Your task to perform on an android device: turn off airplane mode Image 0: 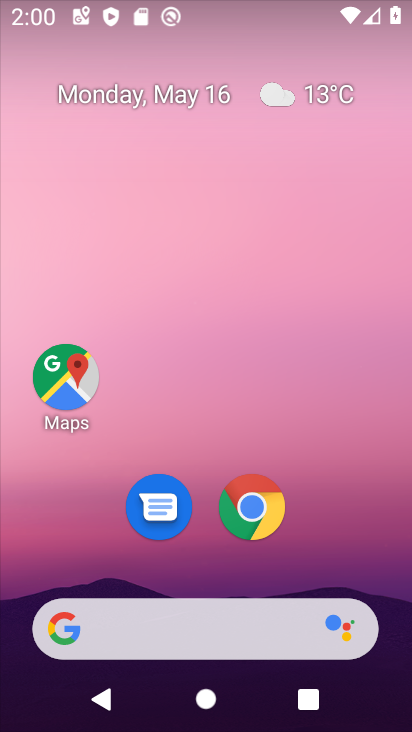
Step 0: drag from (353, 565) to (368, 70)
Your task to perform on an android device: turn off airplane mode Image 1: 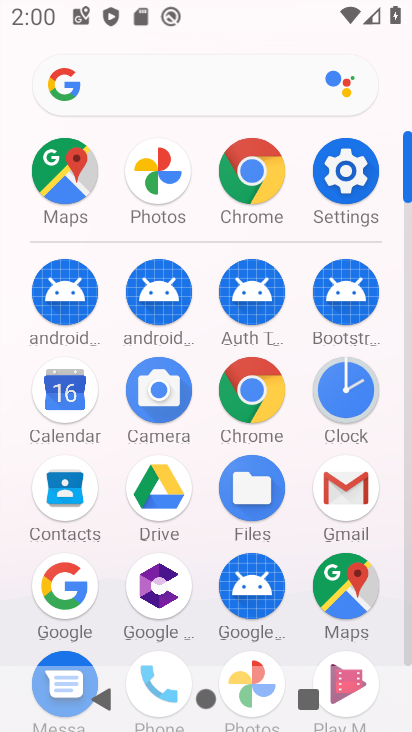
Step 1: click (358, 195)
Your task to perform on an android device: turn off airplane mode Image 2: 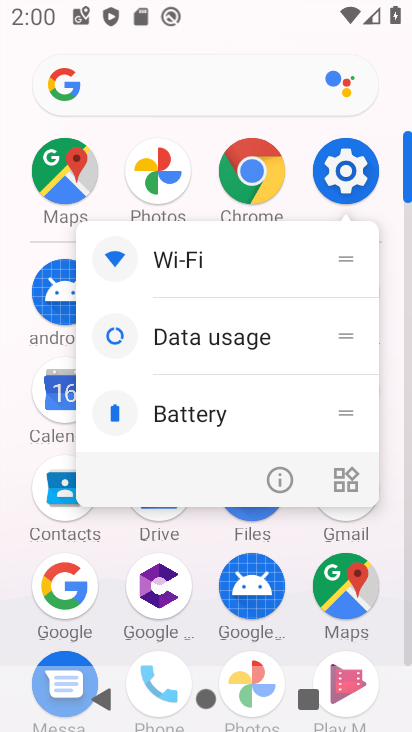
Step 2: click (358, 195)
Your task to perform on an android device: turn off airplane mode Image 3: 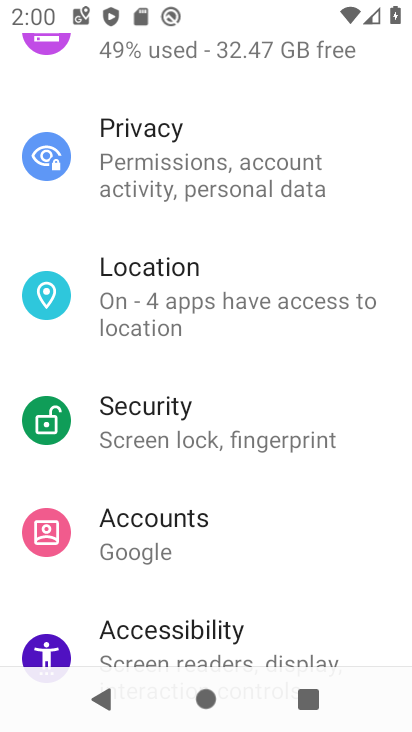
Step 3: drag from (336, 583) to (344, 487)
Your task to perform on an android device: turn off airplane mode Image 4: 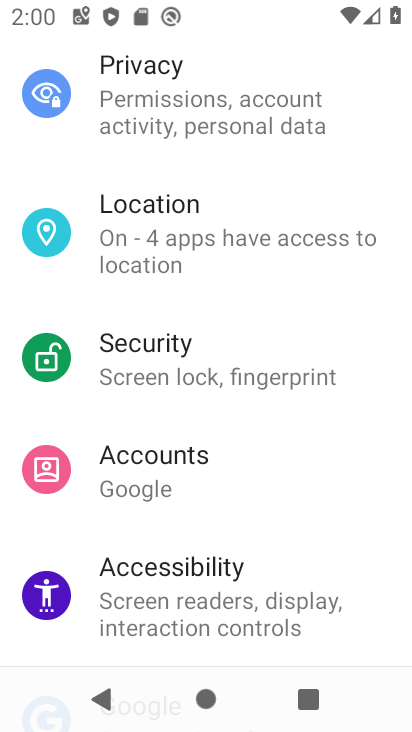
Step 4: drag from (357, 606) to (355, 462)
Your task to perform on an android device: turn off airplane mode Image 5: 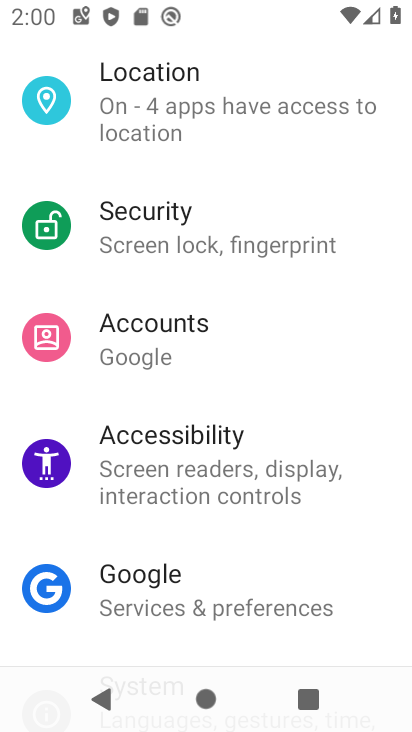
Step 5: drag from (363, 634) to (367, 482)
Your task to perform on an android device: turn off airplane mode Image 6: 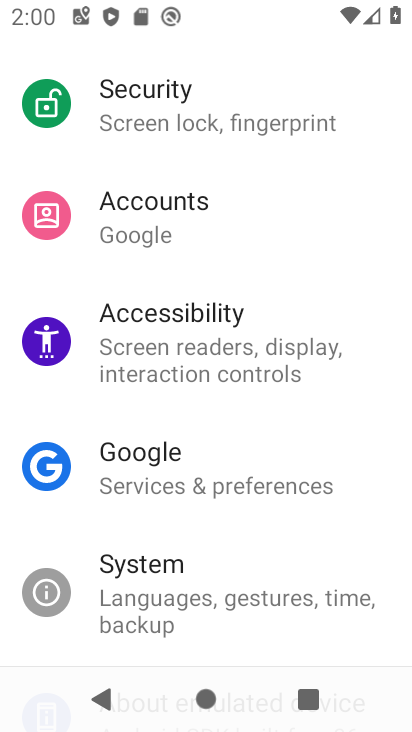
Step 6: drag from (339, 649) to (363, 340)
Your task to perform on an android device: turn off airplane mode Image 7: 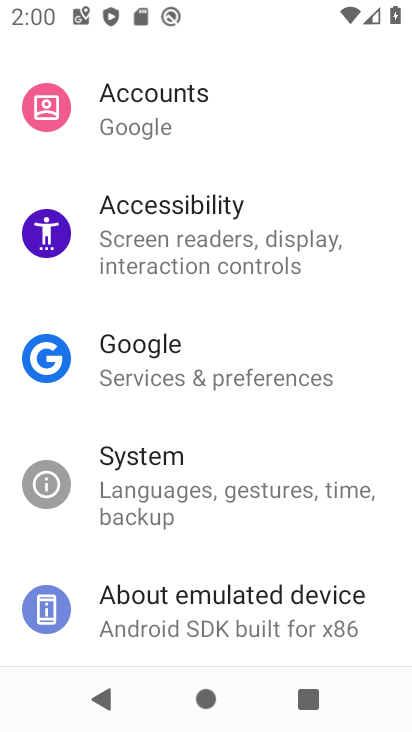
Step 7: drag from (370, 302) to (370, 514)
Your task to perform on an android device: turn off airplane mode Image 8: 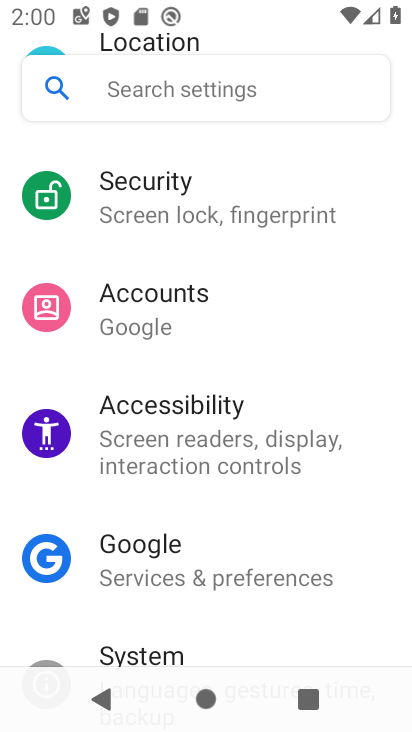
Step 8: drag from (364, 349) to (366, 484)
Your task to perform on an android device: turn off airplane mode Image 9: 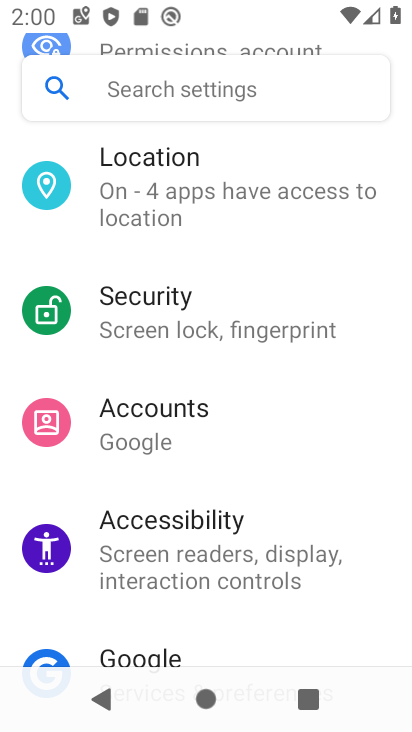
Step 9: drag from (365, 329) to (368, 473)
Your task to perform on an android device: turn off airplane mode Image 10: 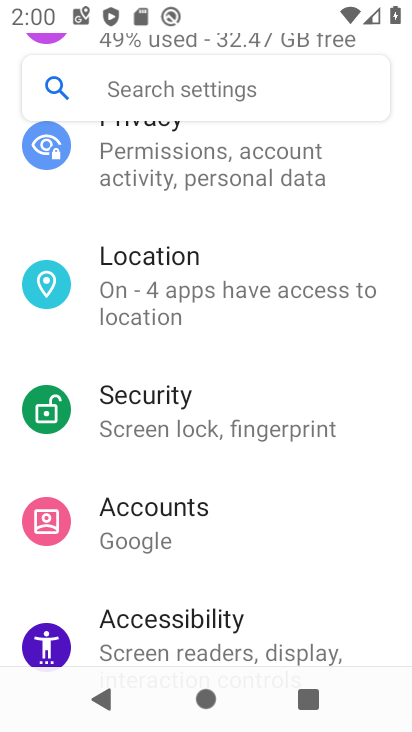
Step 10: drag from (357, 358) to (358, 495)
Your task to perform on an android device: turn off airplane mode Image 11: 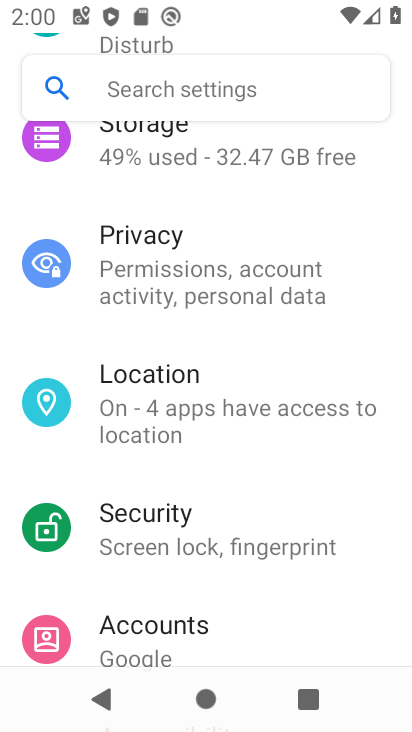
Step 11: drag from (357, 322) to (360, 454)
Your task to perform on an android device: turn off airplane mode Image 12: 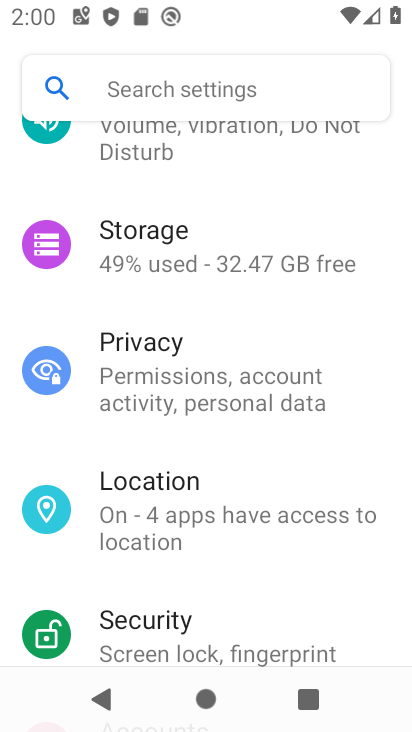
Step 12: drag from (379, 322) to (369, 464)
Your task to perform on an android device: turn off airplane mode Image 13: 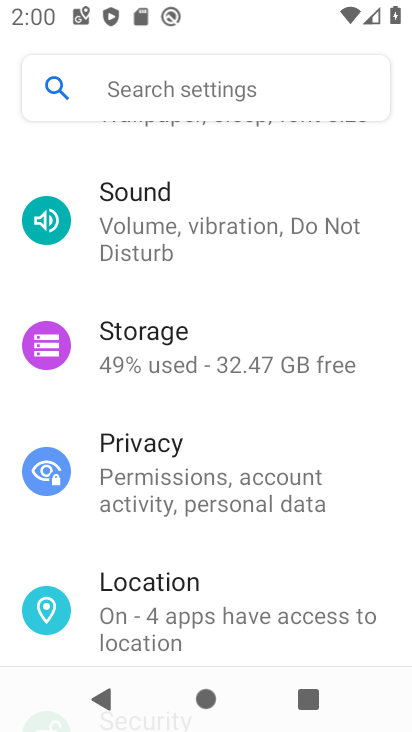
Step 13: drag from (366, 284) to (363, 437)
Your task to perform on an android device: turn off airplane mode Image 14: 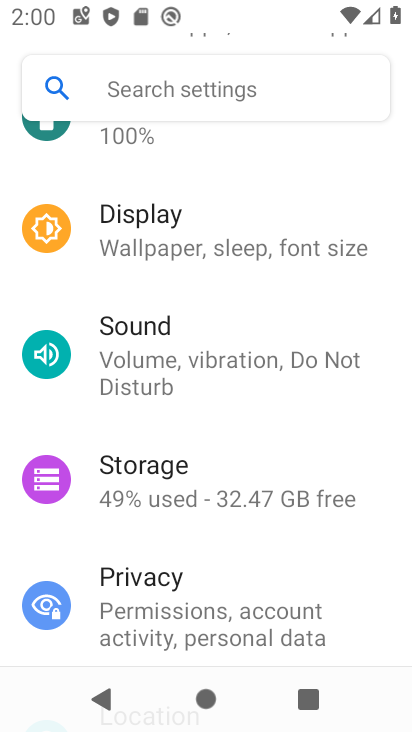
Step 14: drag from (362, 288) to (357, 475)
Your task to perform on an android device: turn off airplane mode Image 15: 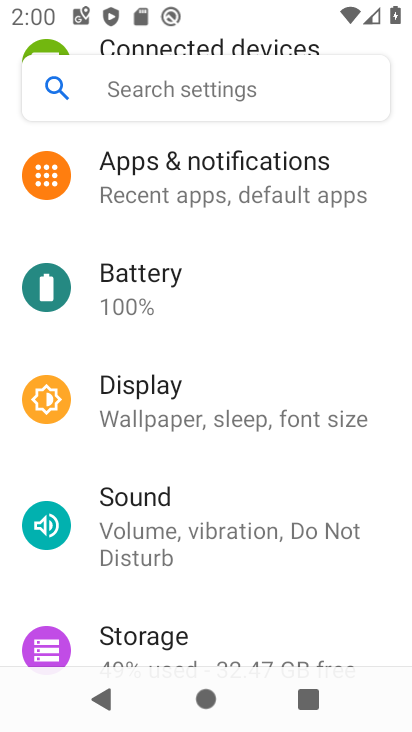
Step 15: drag from (352, 280) to (351, 450)
Your task to perform on an android device: turn off airplane mode Image 16: 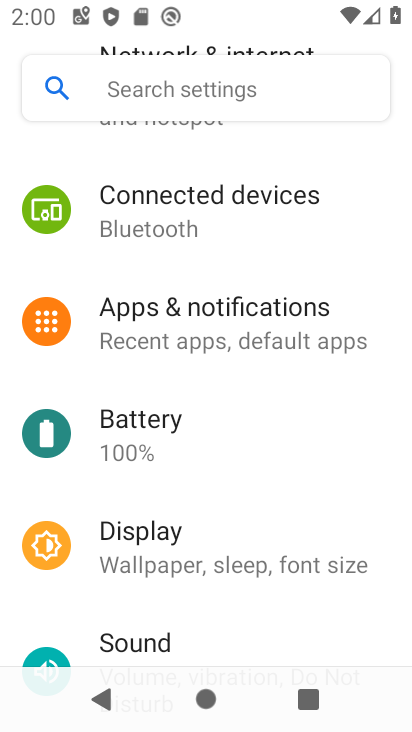
Step 16: drag from (365, 266) to (354, 442)
Your task to perform on an android device: turn off airplane mode Image 17: 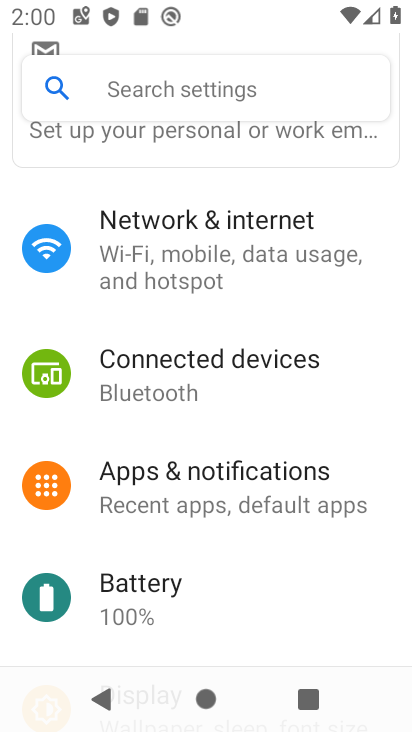
Step 17: drag from (369, 226) to (365, 406)
Your task to perform on an android device: turn off airplane mode Image 18: 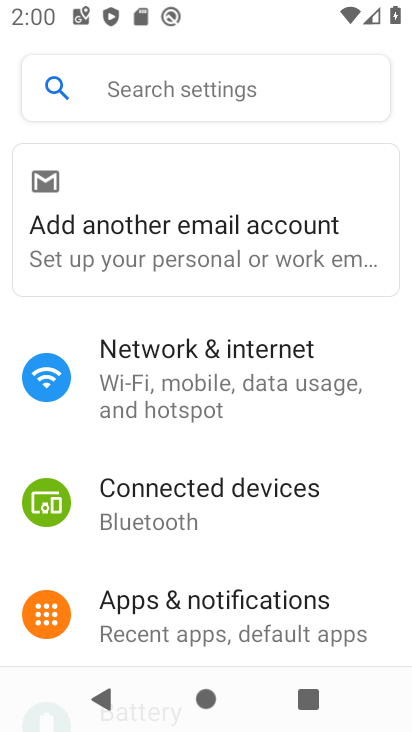
Step 18: click (266, 399)
Your task to perform on an android device: turn off airplane mode Image 19: 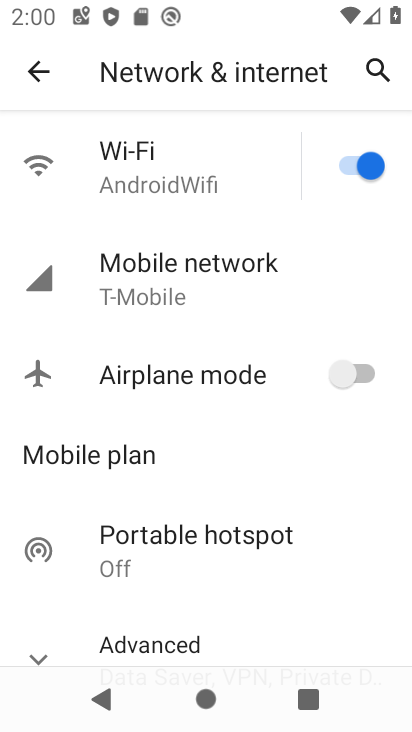
Step 19: task complete